Your task to perform on an android device: Open Android settings Image 0: 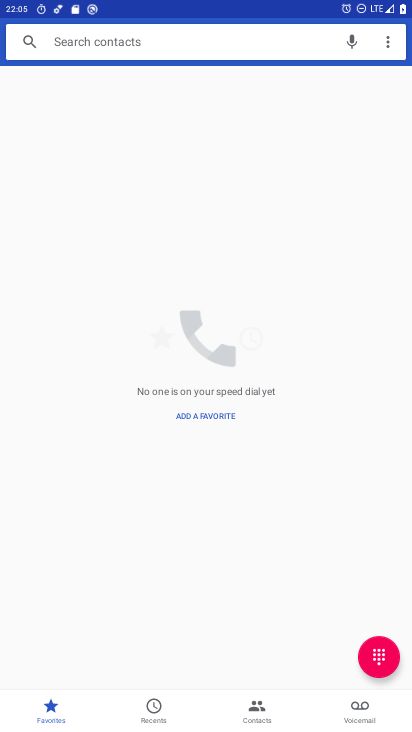
Step 0: click (300, 538)
Your task to perform on an android device: Open Android settings Image 1: 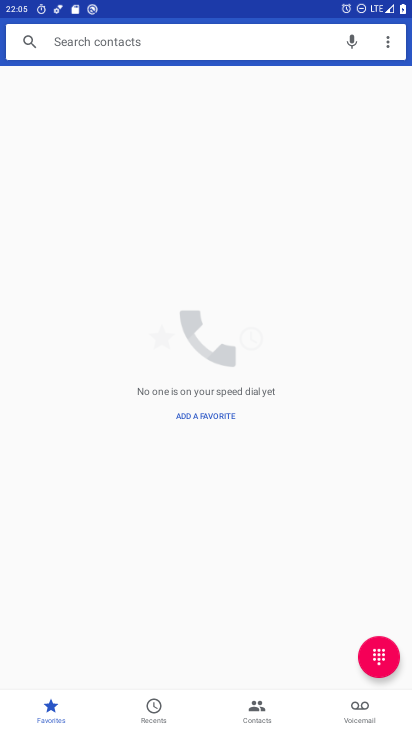
Step 1: press home button
Your task to perform on an android device: Open Android settings Image 2: 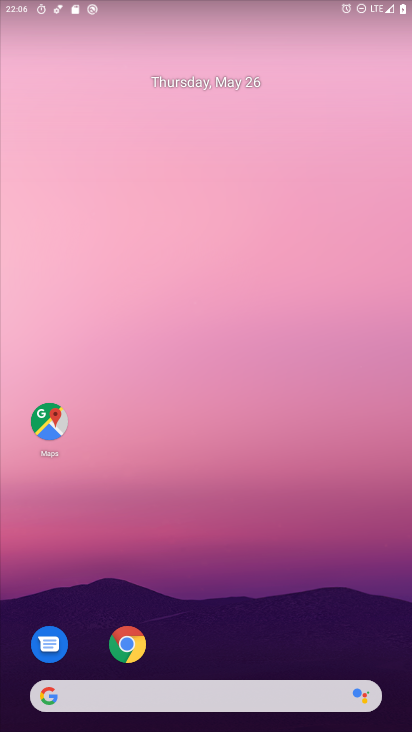
Step 2: drag from (169, 653) to (238, 177)
Your task to perform on an android device: Open Android settings Image 3: 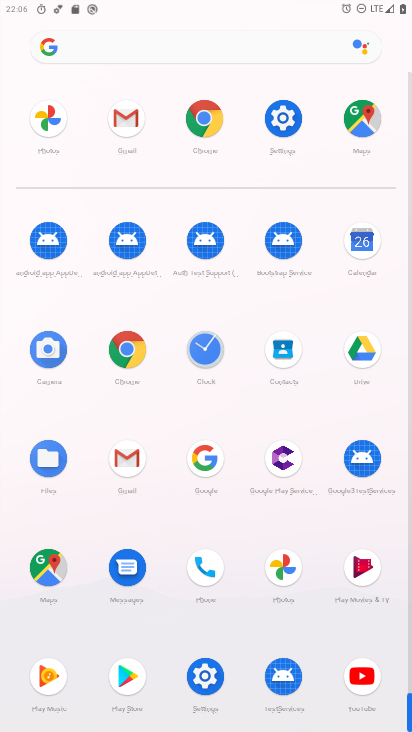
Step 3: click (206, 675)
Your task to perform on an android device: Open Android settings Image 4: 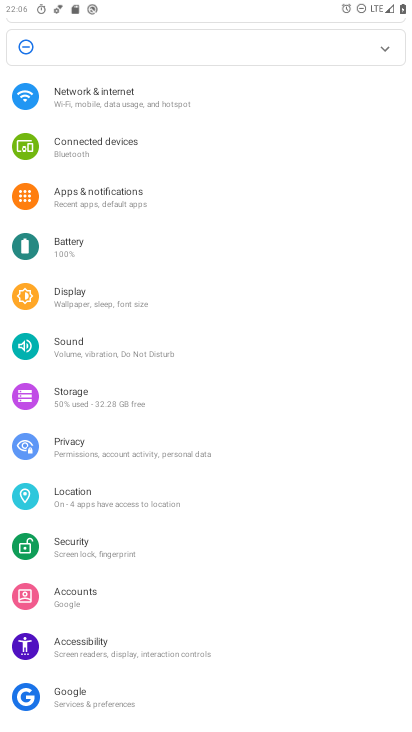
Step 4: drag from (147, 657) to (334, 189)
Your task to perform on an android device: Open Android settings Image 5: 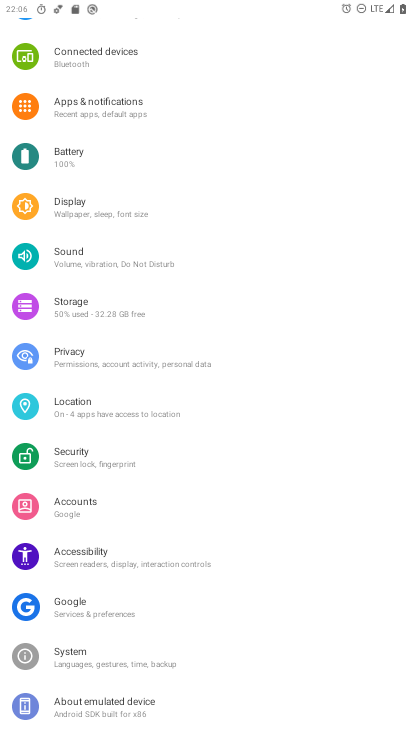
Step 5: click (145, 695)
Your task to perform on an android device: Open Android settings Image 6: 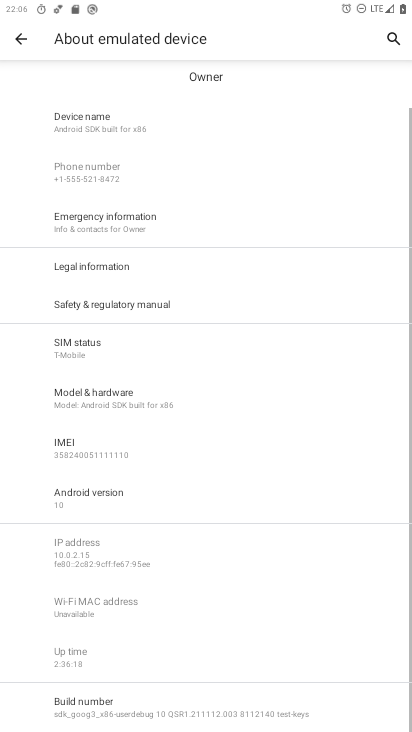
Step 6: click (171, 507)
Your task to perform on an android device: Open Android settings Image 7: 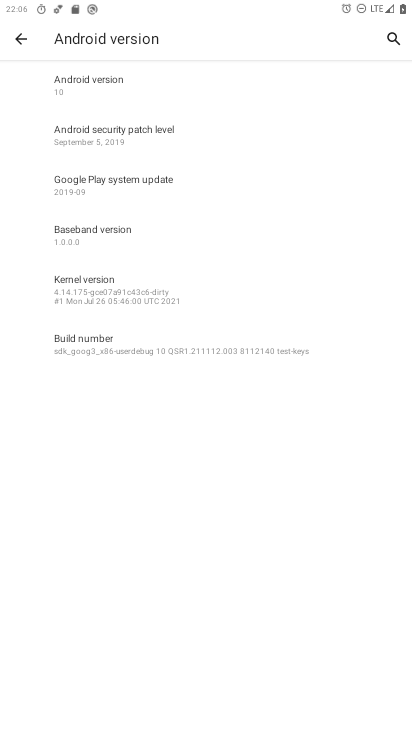
Step 7: task complete